Your task to perform on an android device: Open Yahoo.com Image 0: 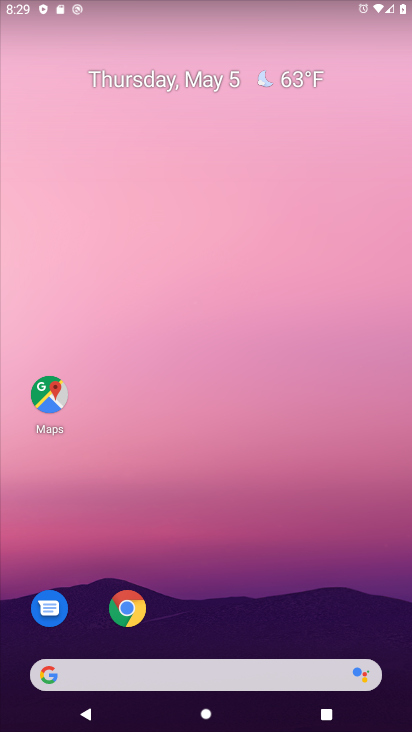
Step 0: click (131, 610)
Your task to perform on an android device: Open Yahoo.com Image 1: 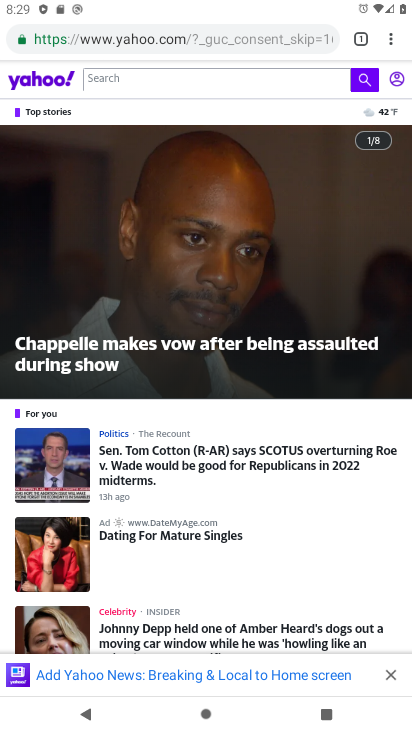
Step 1: task complete